Your task to perform on an android device: change the clock display to show seconds Image 0: 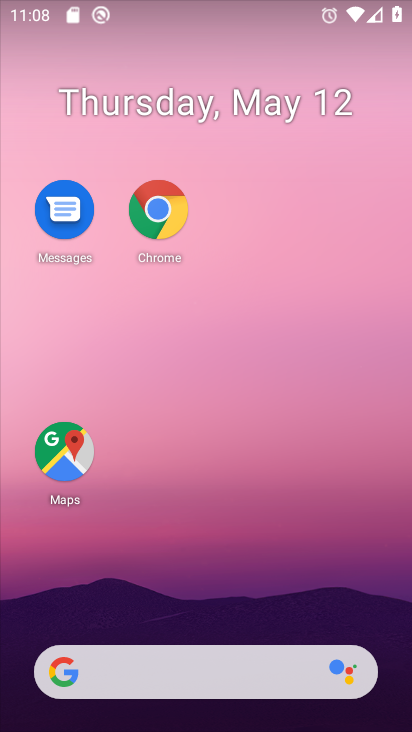
Step 0: drag from (222, 567) to (227, 125)
Your task to perform on an android device: change the clock display to show seconds Image 1: 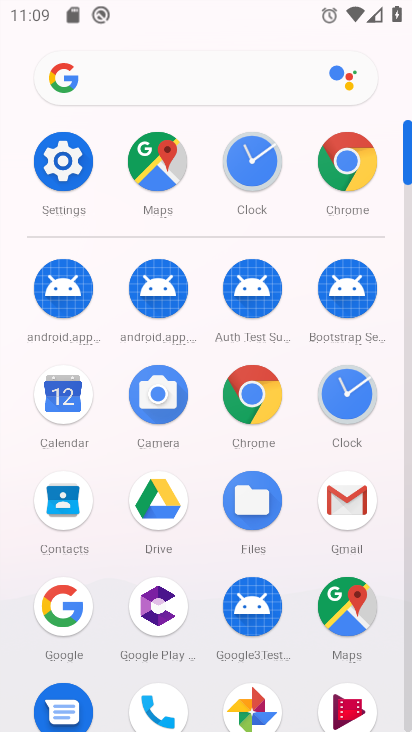
Step 1: click (340, 394)
Your task to perform on an android device: change the clock display to show seconds Image 2: 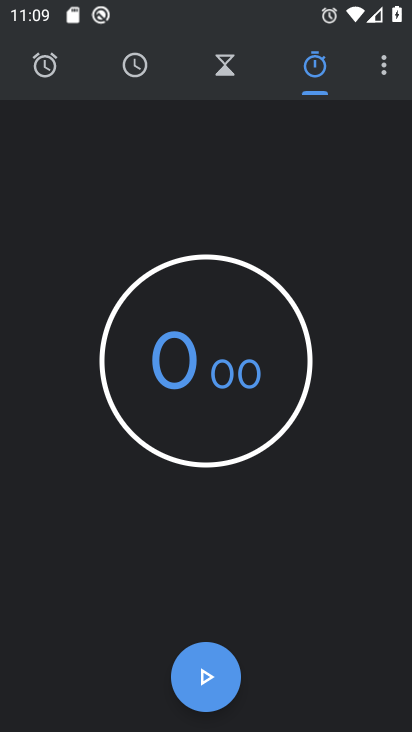
Step 2: click (382, 70)
Your task to perform on an android device: change the clock display to show seconds Image 3: 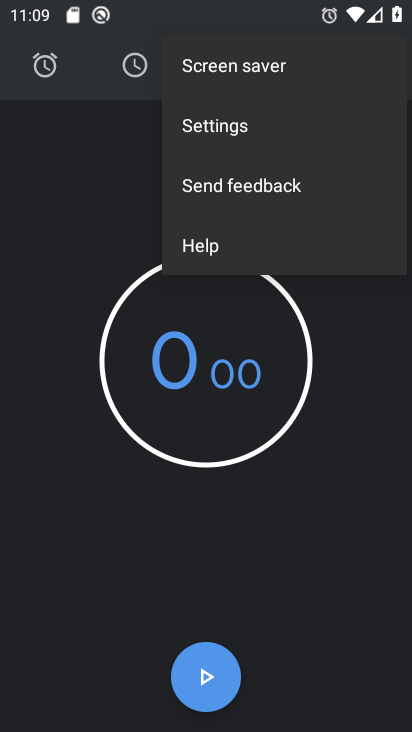
Step 3: click (266, 139)
Your task to perform on an android device: change the clock display to show seconds Image 4: 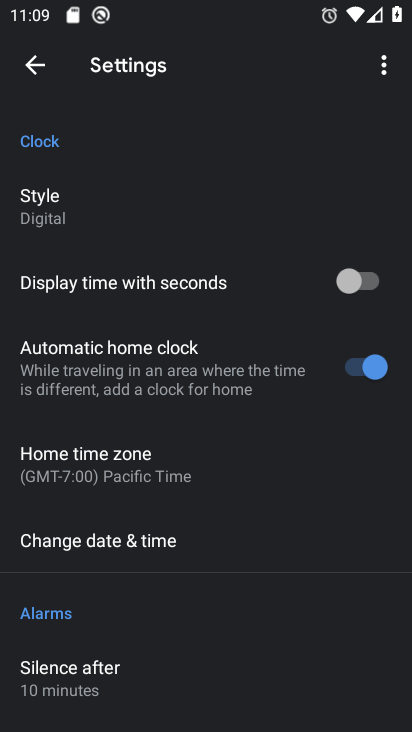
Step 4: click (367, 281)
Your task to perform on an android device: change the clock display to show seconds Image 5: 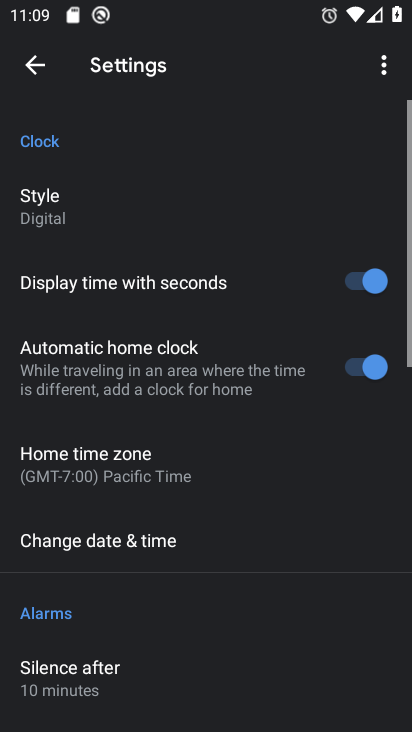
Step 5: task complete